Your task to perform on an android device: Go to Amazon Image 0: 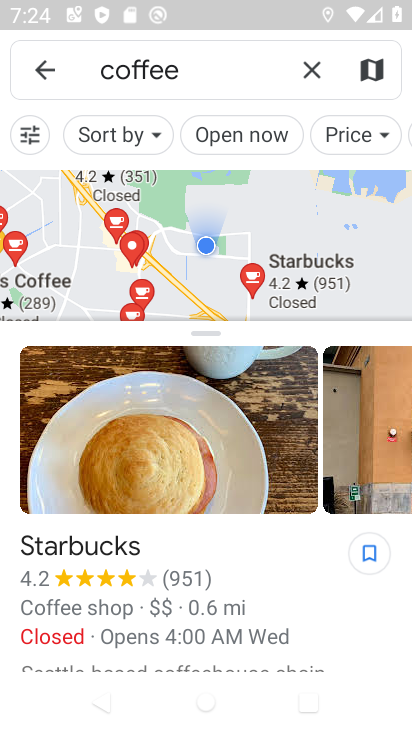
Step 0: press home button
Your task to perform on an android device: Go to Amazon Image 1: 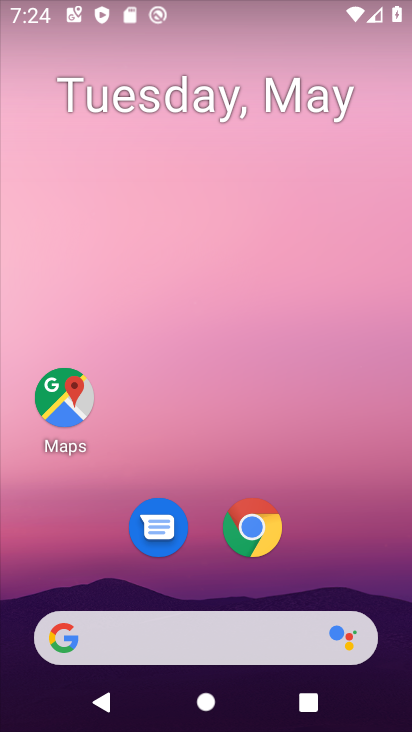
Step 1: click (251, 525)
Your task to perform on an android device: Go to Amazon Image 2: 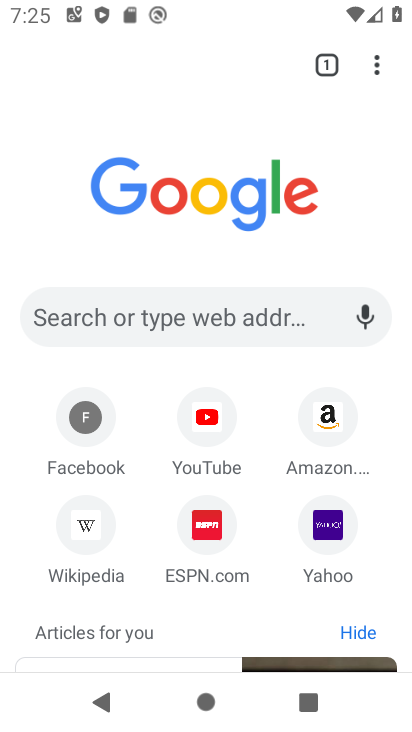
Step 2: click (326, 415)
Your task to perform on an android device: Go to Amazon Image 3: 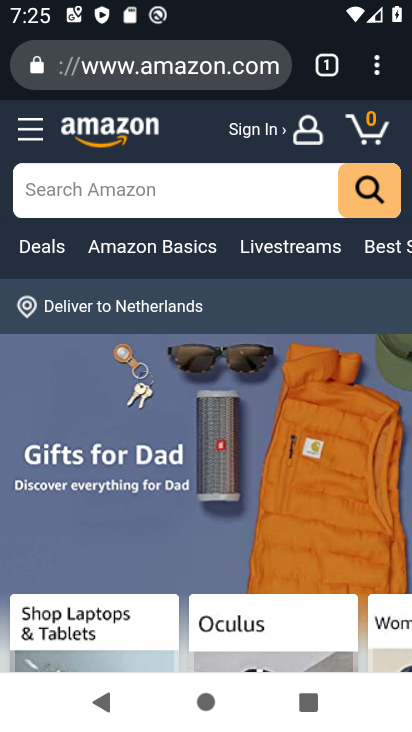
Step 3: task complete